Your task to perform on an android device: Open Amazon Image 0: 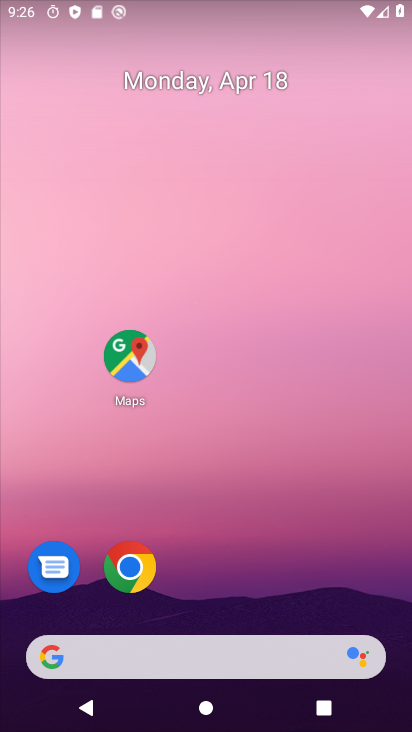
Step 0: click (134, 552)
Your task to perform on an android device: Open Amazon Image 1: 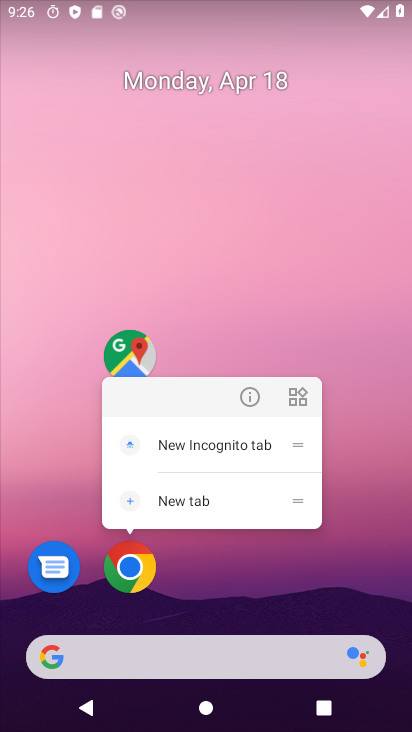
Step 1: click (136, 584)
Your task to perform on an android device: Open Amazon Image 2: 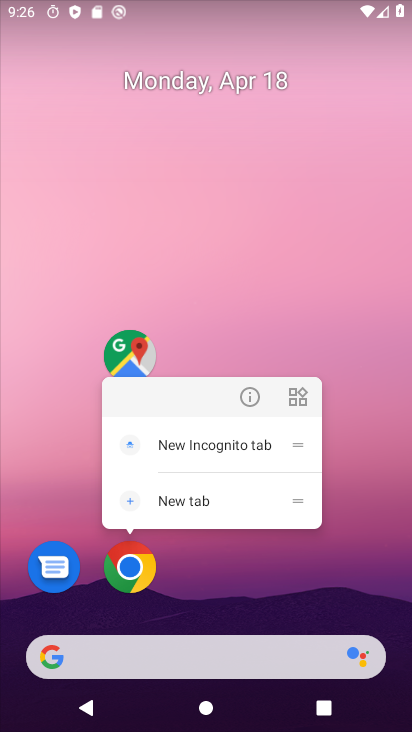
Step 2: click (132, 572)
Your task to perform on an android device: Open Amazon Image 3: 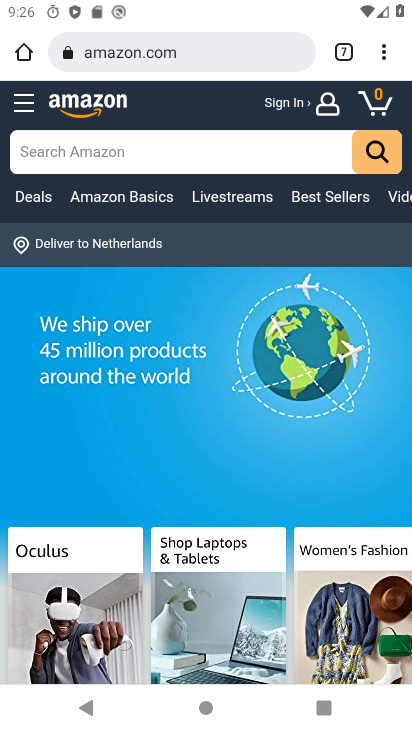
Step 3: click (384, 55)
Your task to perform on an android device: Open Amazon Image 4: 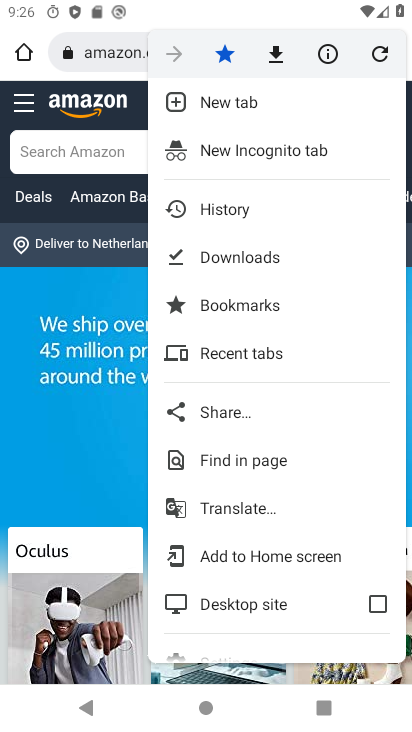
Step 4: click (114, 55)
Your task to perform on an android device: Open Amazon Image 5: 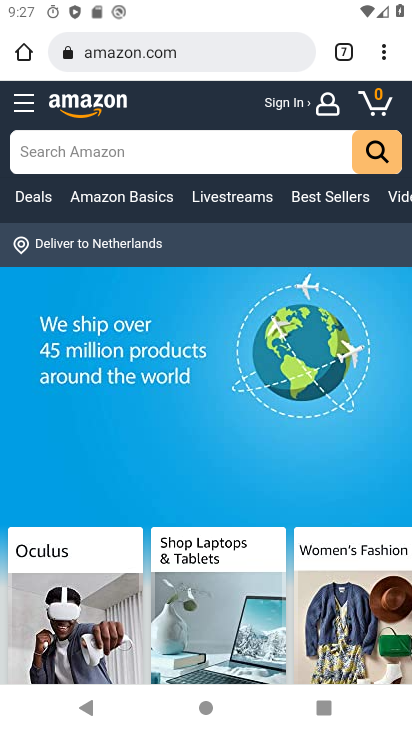
Step 5: click (187, 51)
Your task to perform on an android device: Open Amazon Image 6: 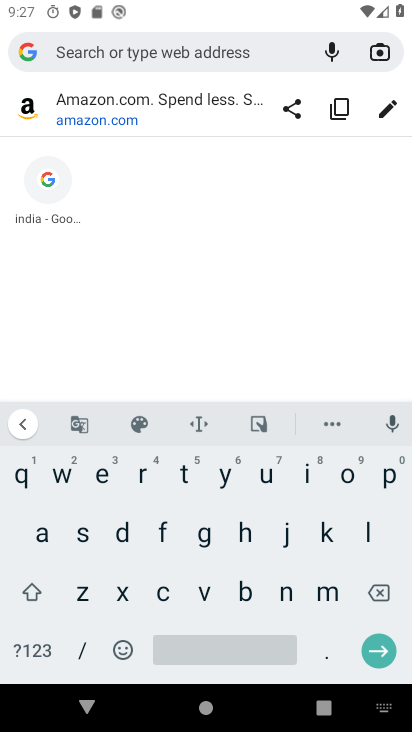
Step 6: click (187, 51)
Your task to perform on an android device: Open Amazon Image 7: 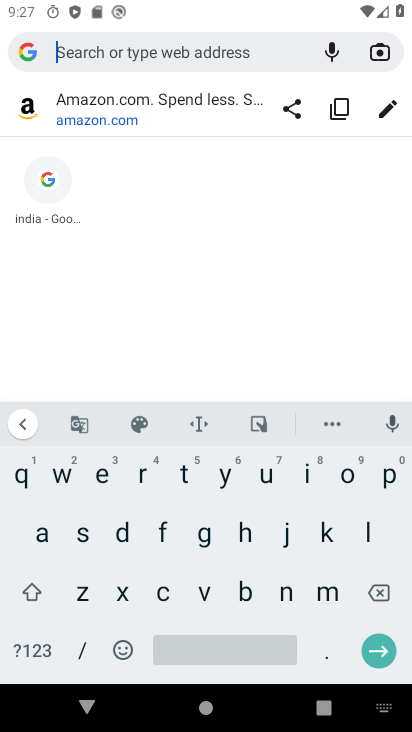
Step 7: click (153, 109)
Your task to perform on an android device: Open Amazon Image 8: 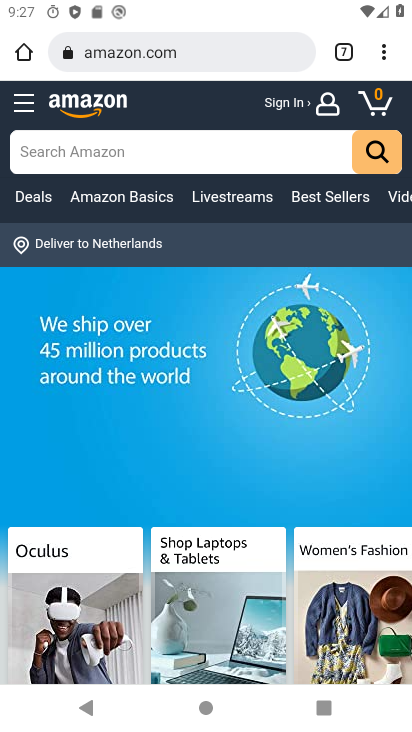
Step 8: task complete